Your task to perform on an android device: Go to Google Image 0: 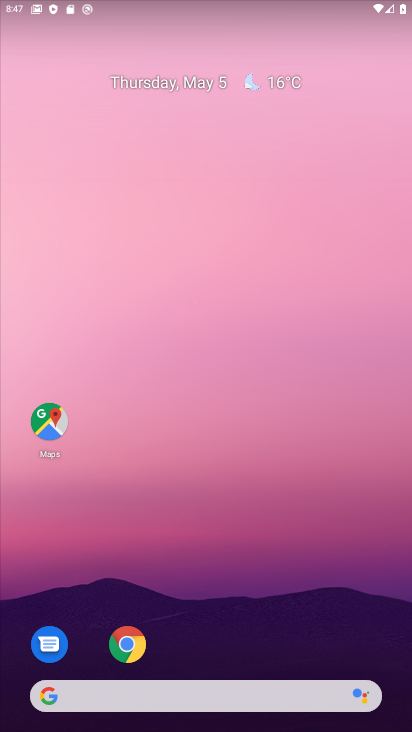
Step 0: drag from (189, 668) to (188, 137)
Your task to perform on an android device: Go to Google Image 1: 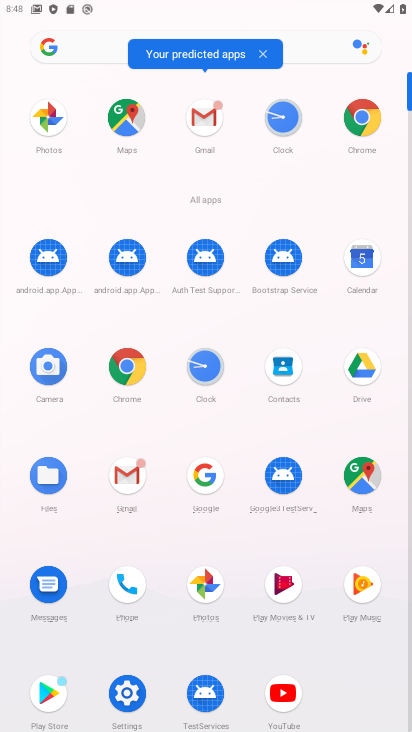
Step 1: click (197, 476)
Your task to perform on an android device: Go to Google Image 2: 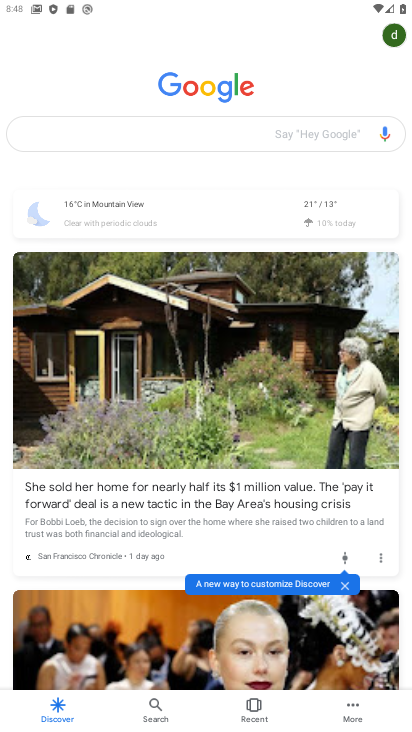
Step 2: task complete